Your task to perform on an android device: Open Amazon Image 0: 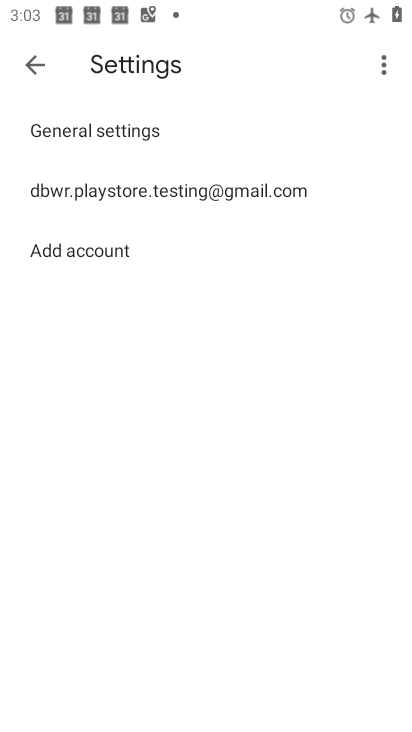
Step 0: press home button
Your task to perform on an android device: Open Amazon Image 1: 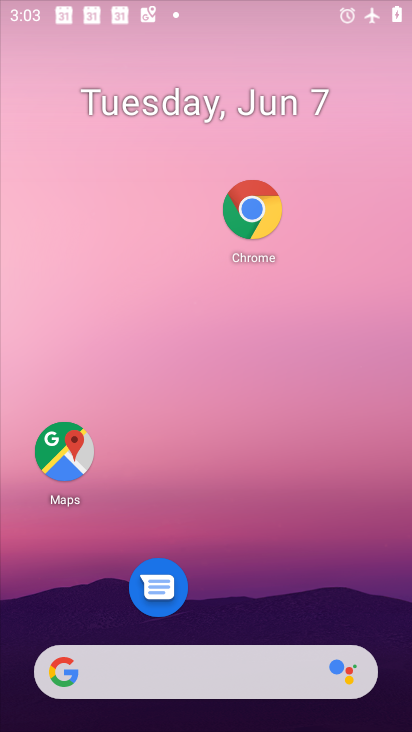
Step 1: click (204, 118)
Your task to perform on an android device: Open Amazon Image 2: 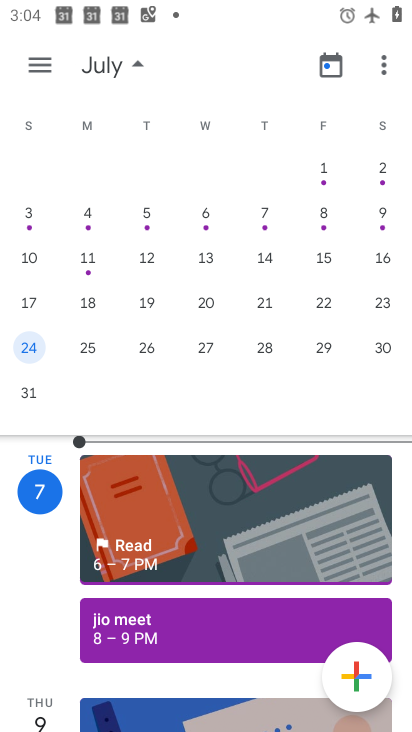
Step 2: press home button
Your task to perform on an android device: Open Amazon Image 3: 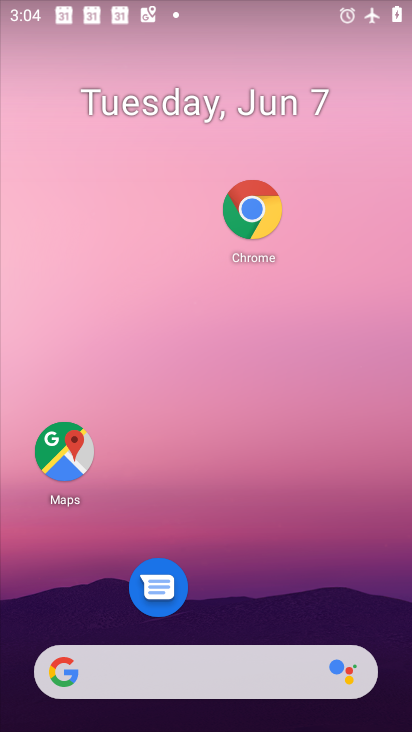
Step 3: drag from (227, 525) to (233, 161)
Your task to perform on an android device: Open Amazon Image 4: 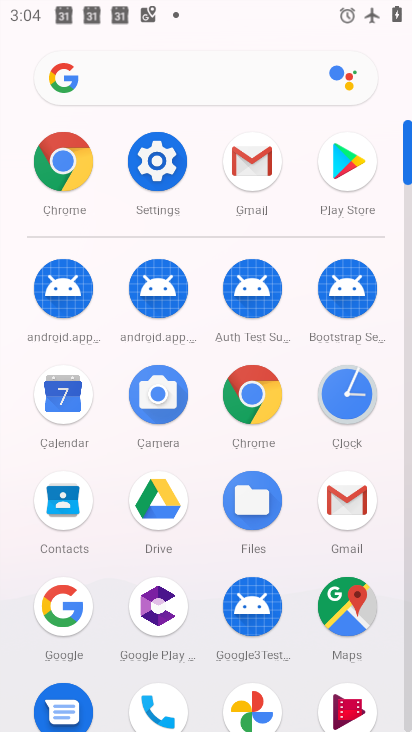
Step 4: click (70, 169)
Your task to perform on an android device: Open Amazon Image 5: 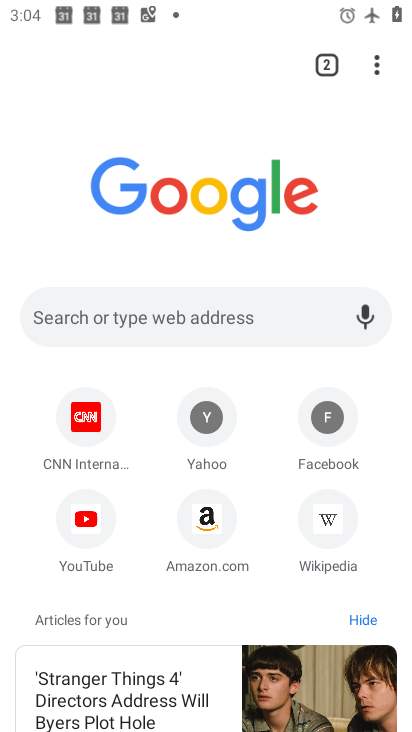
Step 5: click (204, 530)
Your task to perform on an android device: Open Amazon Image 6: 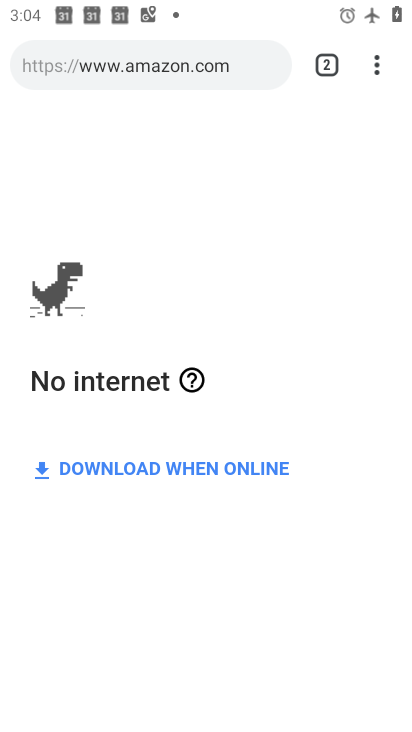
Step 6: task complete